Your task to perform on an android device: visit the assistant section in the google photos Image 0: 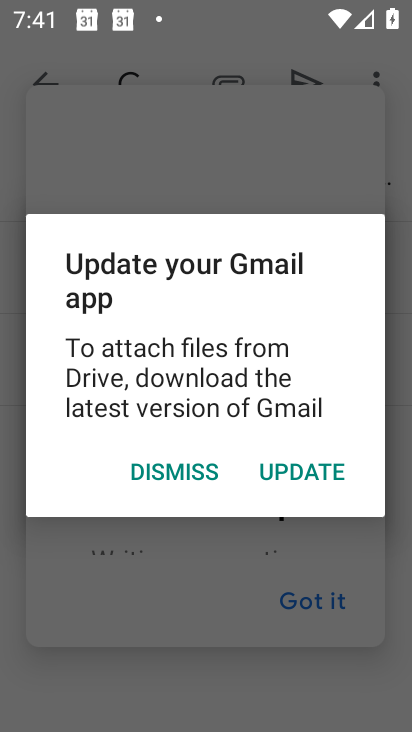
Step 0: press home button
Your task to perform on an android device: visit the assistant section in the google photos Image 1: 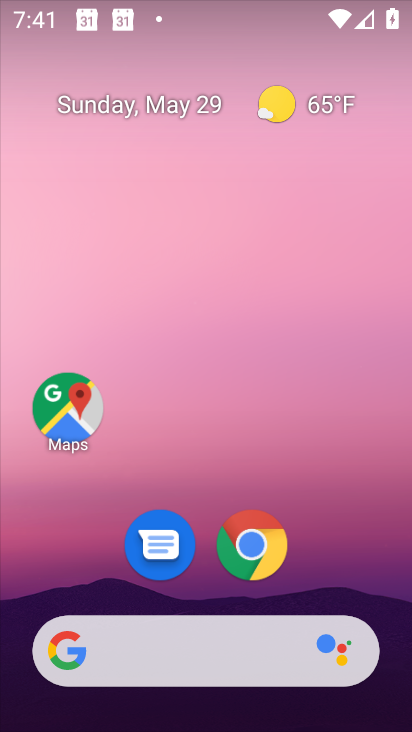
Step 1: drag from (190, 557) to (287, 185)
Your task to perform on an android device: visit the assistant section in the google photos Image 2: 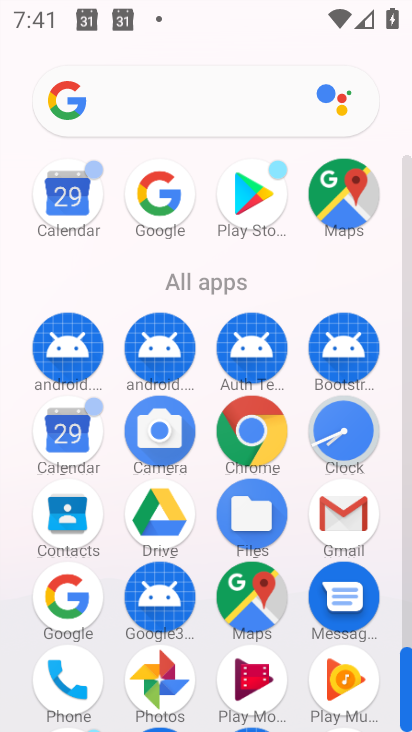
Step 2: click (164, 685)
Your task to perform on an android device: visit the assistant section in the google photos Image 3: 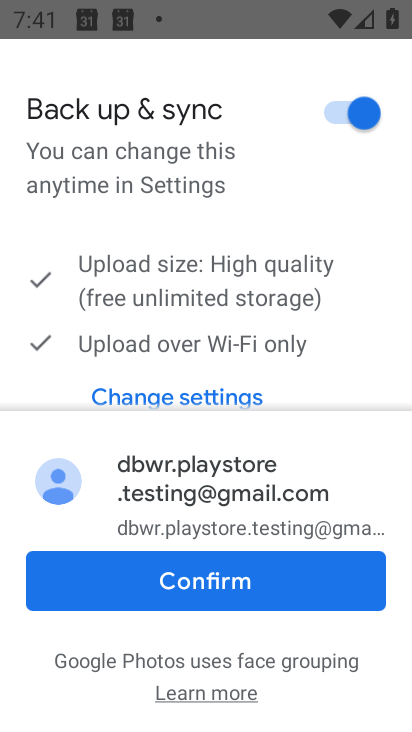
Step 3: click (195, 577)
Your task to perform on an android device: visit the assistant section in the google photos Image 4: 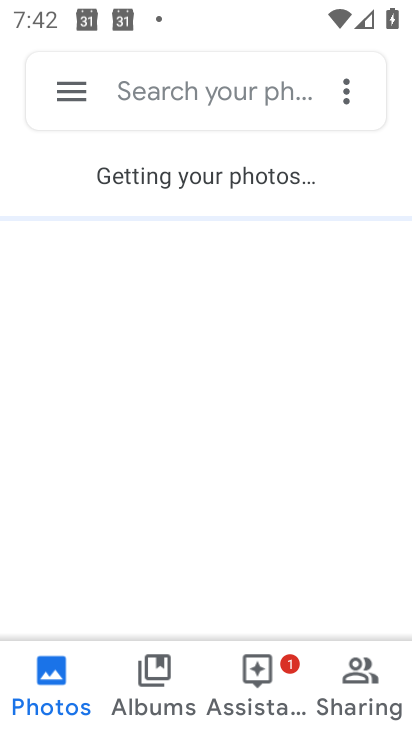
Step 4: click (239, 698)
Your task to perform on an android device: visit the assistant section in the google photos Image 5: 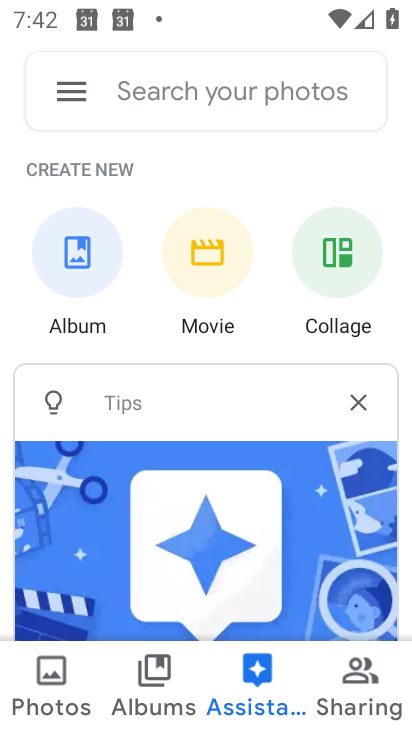
Step 5: task complete